Your task to perform on an android device: uninstall "Mercado Libre" Image 0: 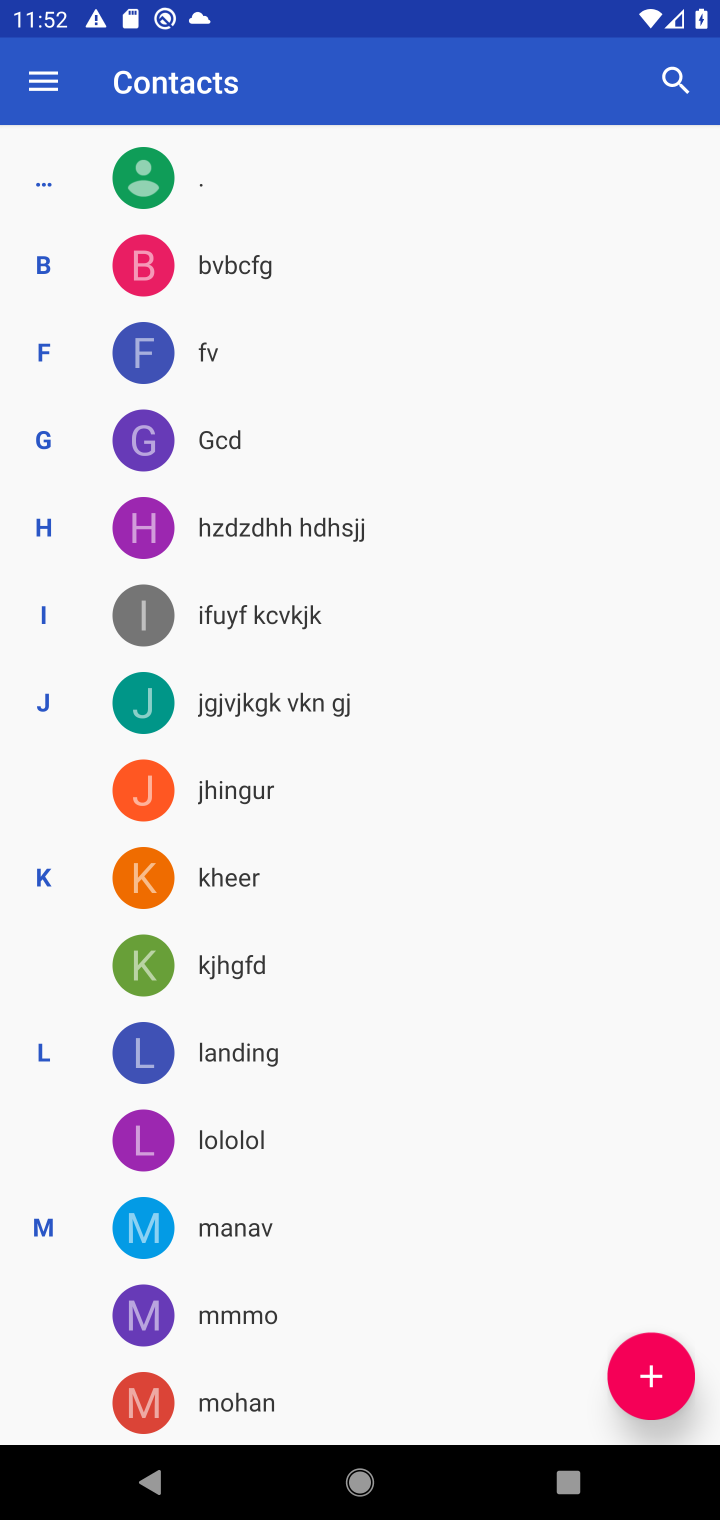
Step 0: task impossible